Your task to perform on an android device: Open Youtube and go to the subscriptions tab Image 0: 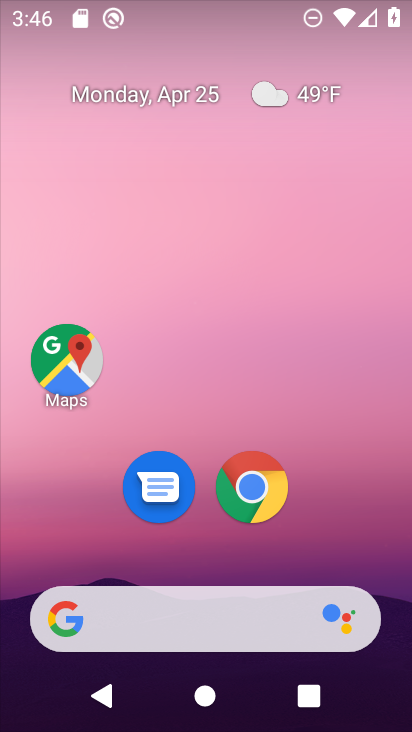
Step 0: drag from (376, 545) to (356, 20)
Your task to perform on an android device: Open Youtube and go to the subscriptions tab Image 1: 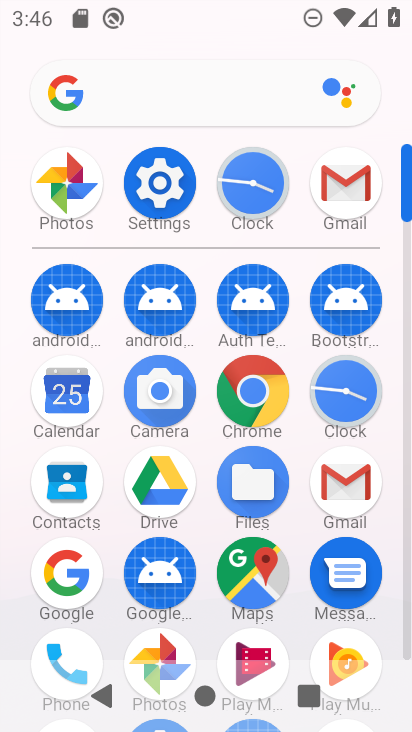
Step 1: click (409, 591)
Your task to perform on an android device: Open Youtube and go to the subscriptions tab Image 2: 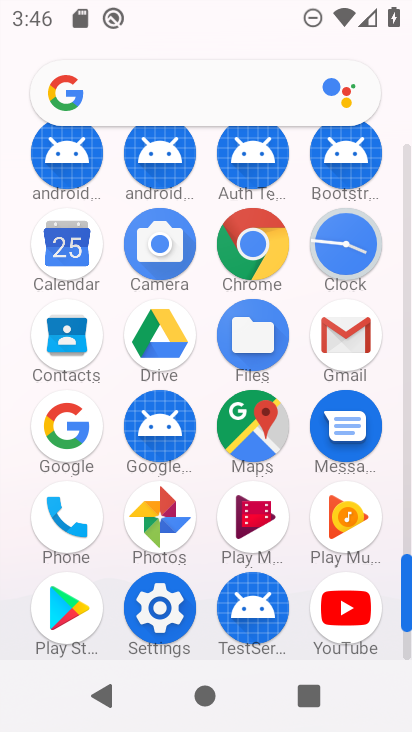
Step 2: click (347, 612)
Your task to perform on an android device: Open Youtube and go to the subscriptions tab Image 3: 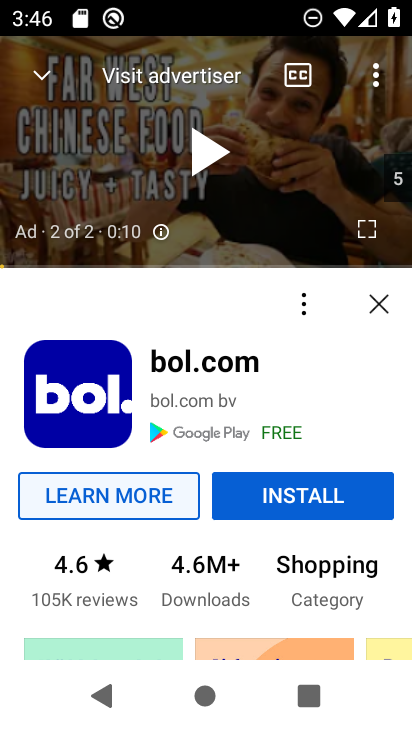
Step 3: click (370, 307)
Your task to perform on an android device: Open Youtube and go to the subscriptions tab Image 4: 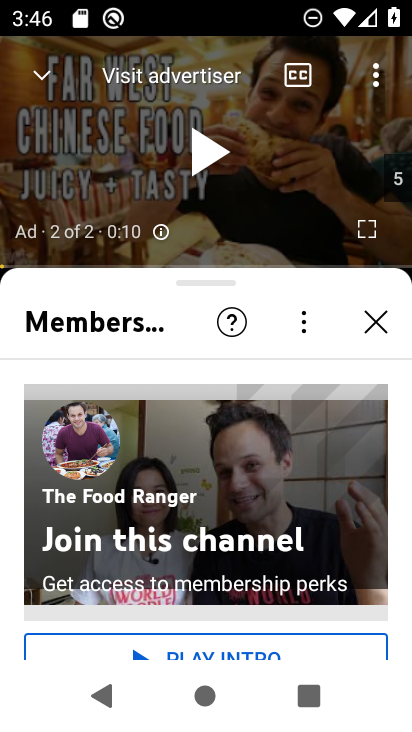
Step 4: click (42, 87)
Your task to perform on an android device: Open Youtube and go to the subscriptions tab Image 5: 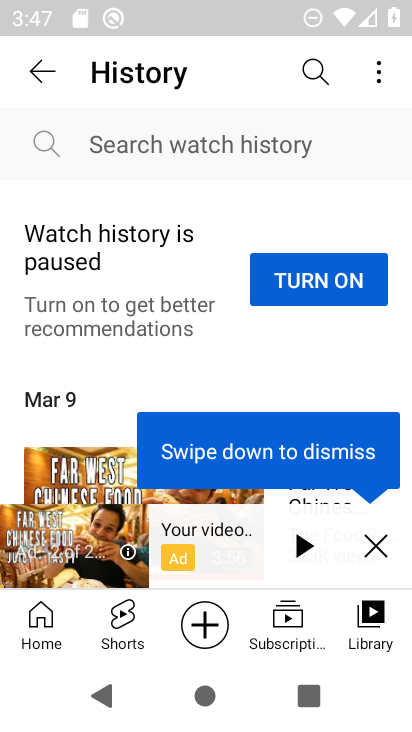
Step 5: click (279, 629)
Your task to perform on an android device: Open Youtube and go to the subscriptions tab Image 6: 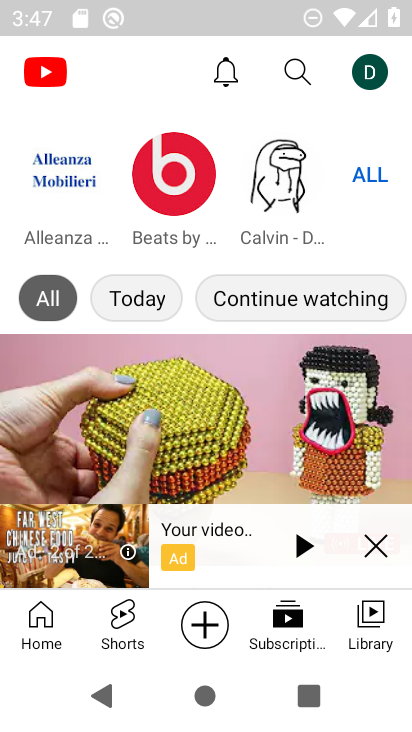
Step 6: task complete